Your task to perform on an android device: Open sound settings Image 0: 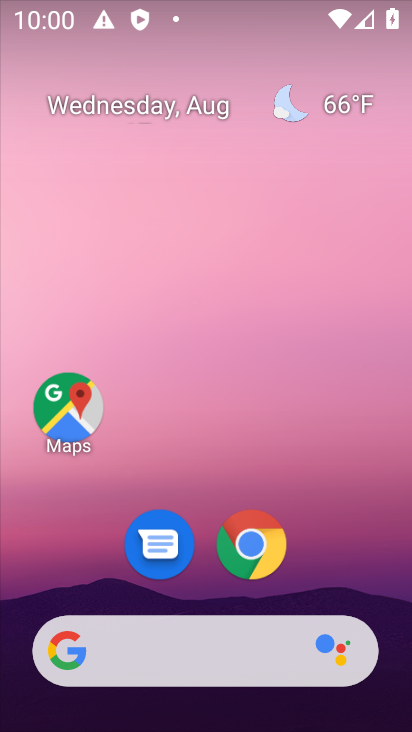
Step 0: drag from (242, 426) to (259, 43)
Your task to perform on an android device: Open sound settings Image 1: 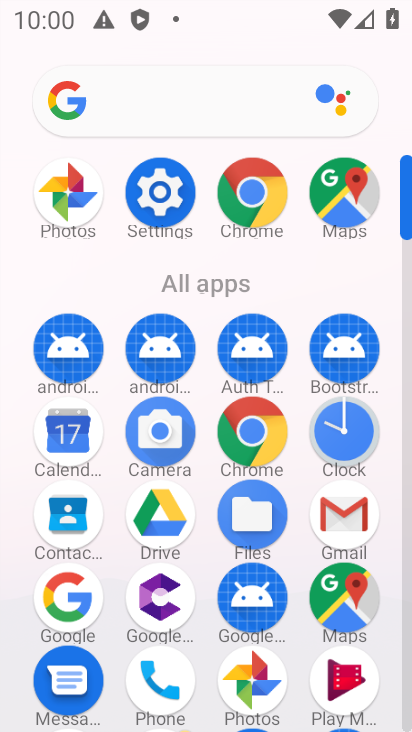
Step 1: task complete